Your task to perform on an android device: Go to network settings Image 0: 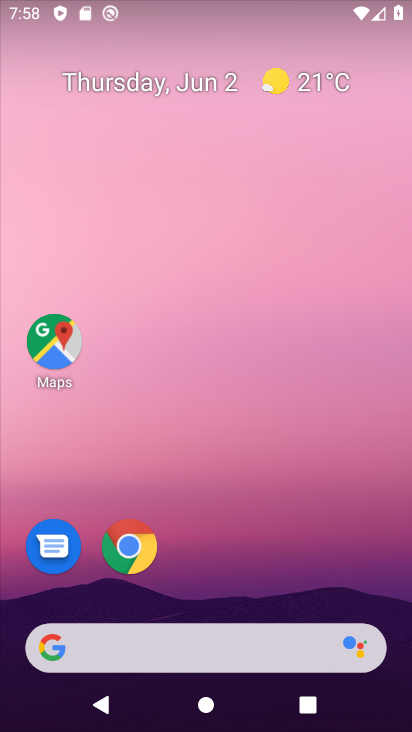
Step 0: drag from (202, 465) to (180, 23)
Your task to perform on an android device: Go to network settings Image 1: 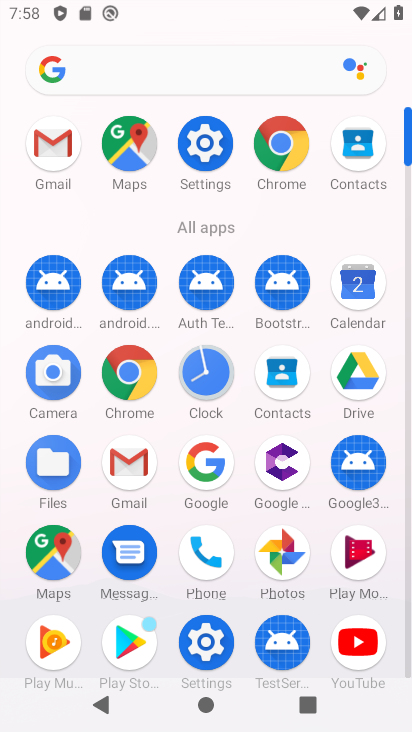
Step 1: click (190, 145)
Your task to perform on an android device: Go to network settings Image 2: 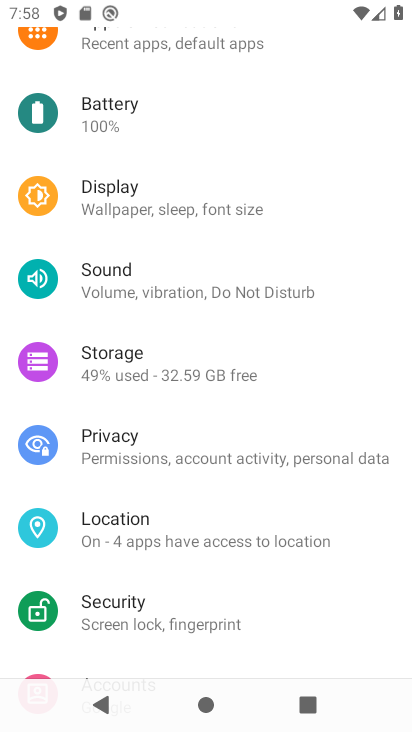
Step 2: drag from (199, 169) to (265, 566)
Your task to perform on an android device: Go to network settings Image 3: 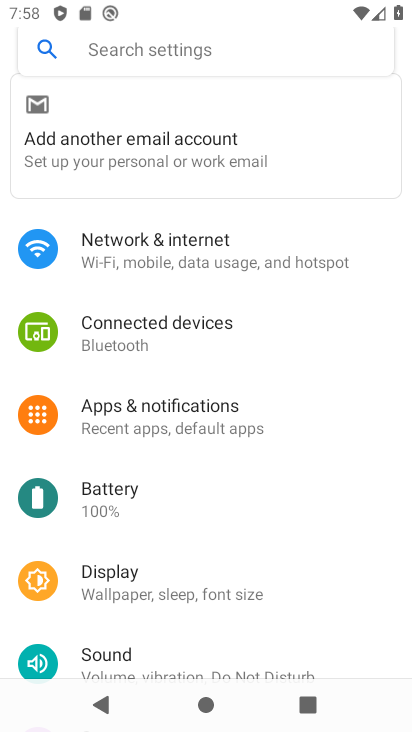
Step 3: click (219, 248)
Your task to perform on an android device: Go to network settings Image 4: 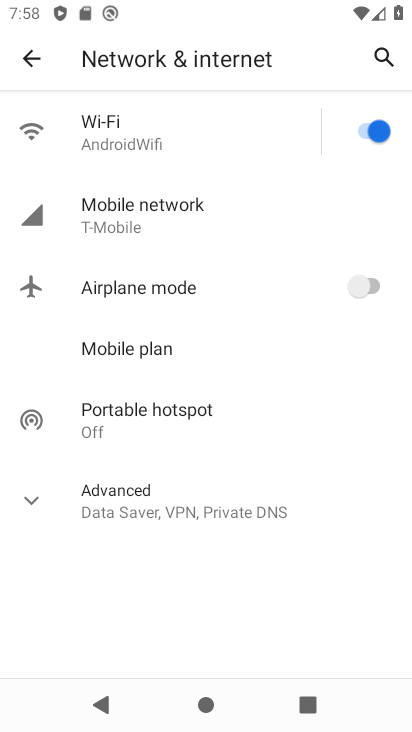
Step 4: task complete